Your task to perform on an android device: turn pop-ups off in chrome Image 0: 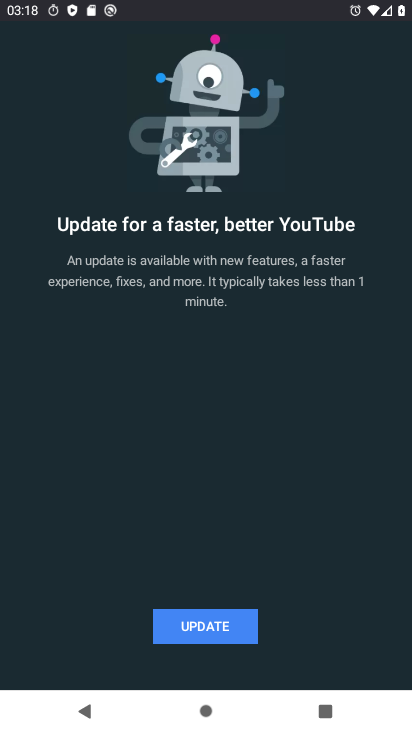
Step 0: press home button
Your task to perform on an android device: turn pop-ups off in chrome Image 1: 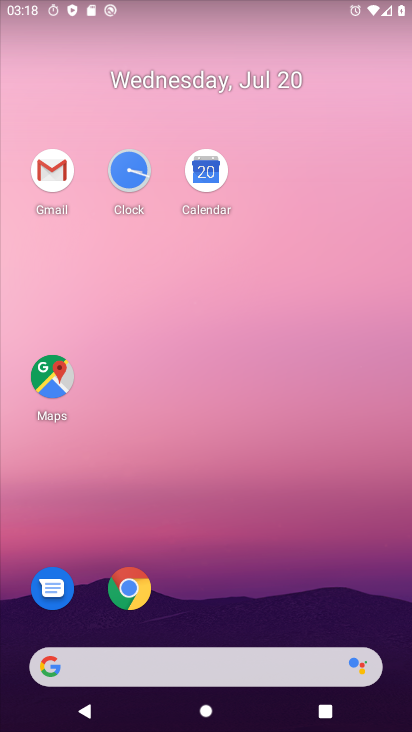
Step 1: click (134, 579)
Your task to perform on an android device: turn pop-ups off in chrome Image 2: 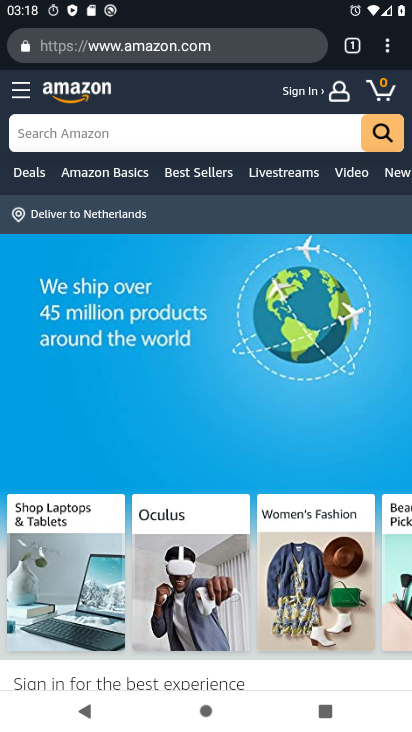
Step 2: click (384, 44)
Your task to perform on an android device: turn pop-ups off in chrome Image 3: 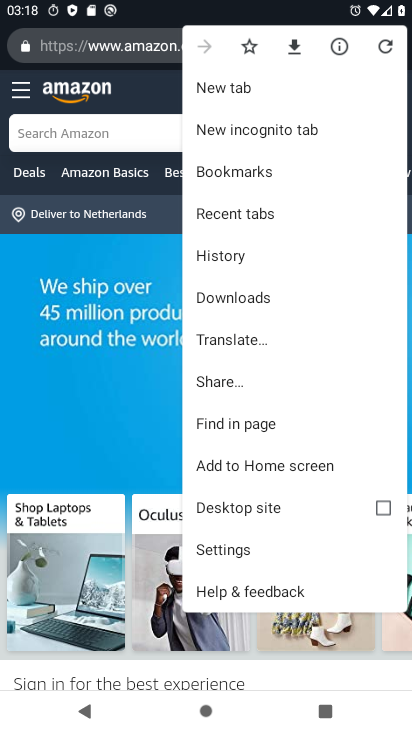
Step 3: click (254, 540)
Your task to perform on an android device: turn pop-ups off in chrome Image 4: 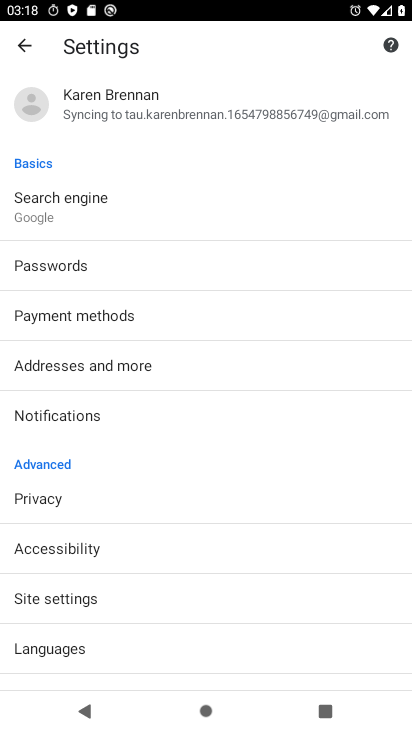
Step 4: click (90, 602)
Your task to perform on an android device: turn pop-ups off in chrome Image 5: 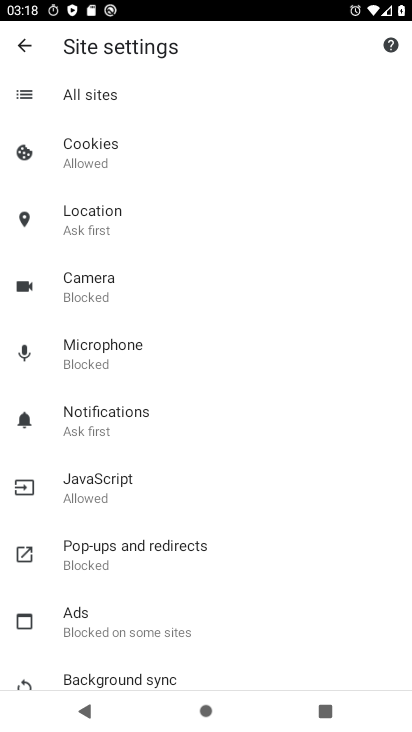
Step 5: click (153, 551)
Your task to perform on an android device: turn pop-ups off in chrome Image 6: 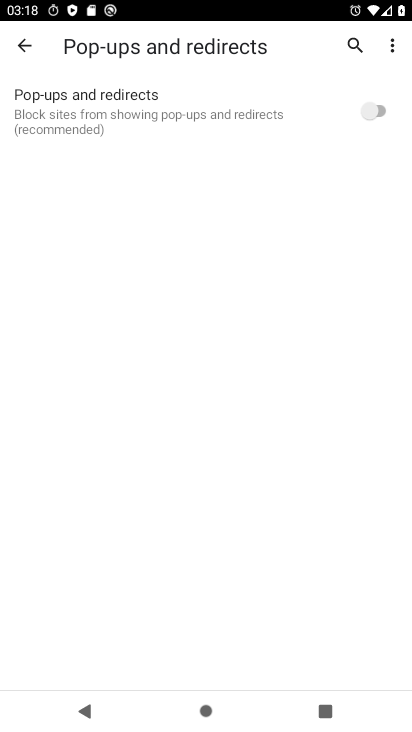
Step 6: task complete